Your task to perform on an android device: toggle translation in the chrome app Image 0: 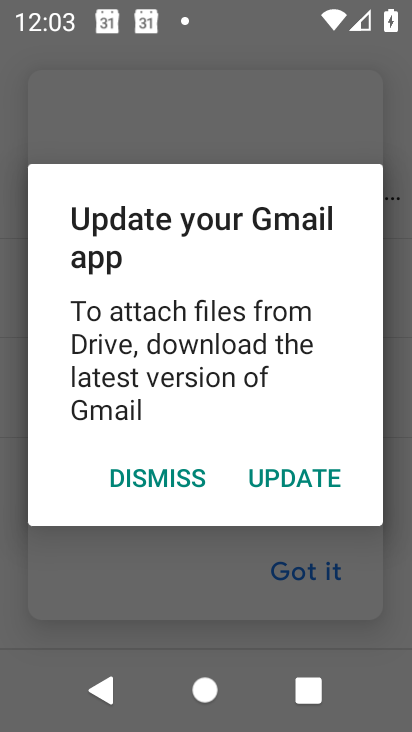
Step 0: press home button
Your task to perform on an android device: toggle translation in the chrome app Image 1: 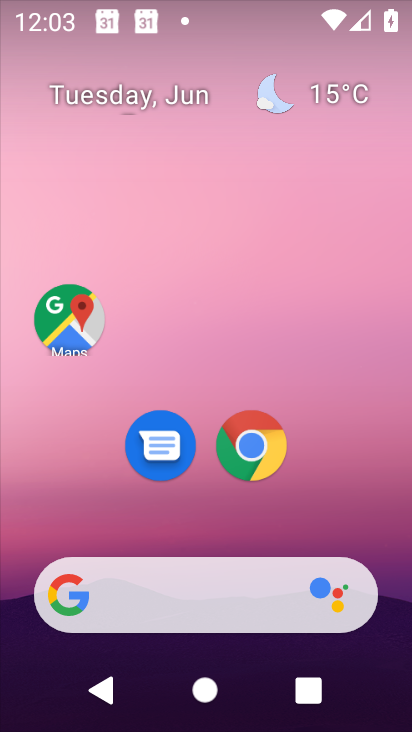
Step 1: click (241, 440)
Your task to perform on an android device: toggle translation in the chrome app Image 2: 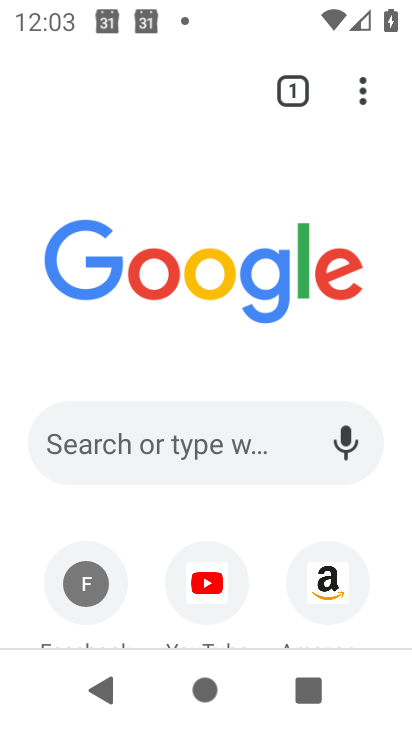
Step 2: click (370, 87)
Your task to perform on an android device: toggle translation in the chrome app Image 3: 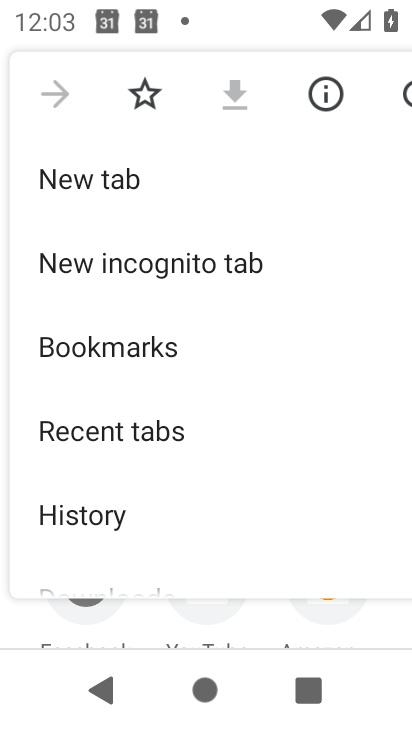
Step 3: drag from (153, 557) to (87, 132)
Your task to perform on an android device: toggle translation in the chrome app Image 4: 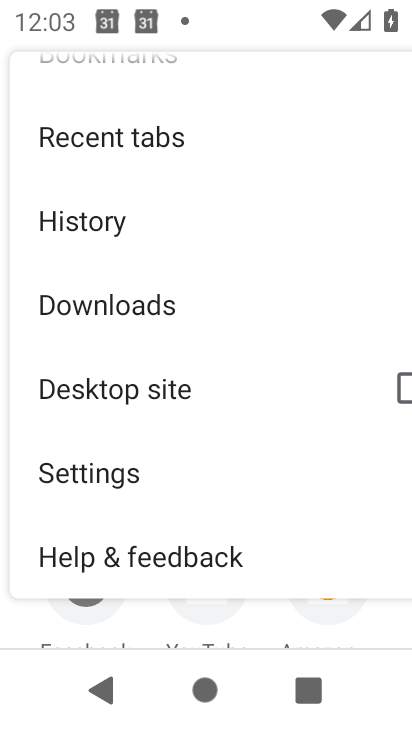
Step 4: click (99, 480)
Your task to perform on an android device: toggle translation in the chrome app Image 5: 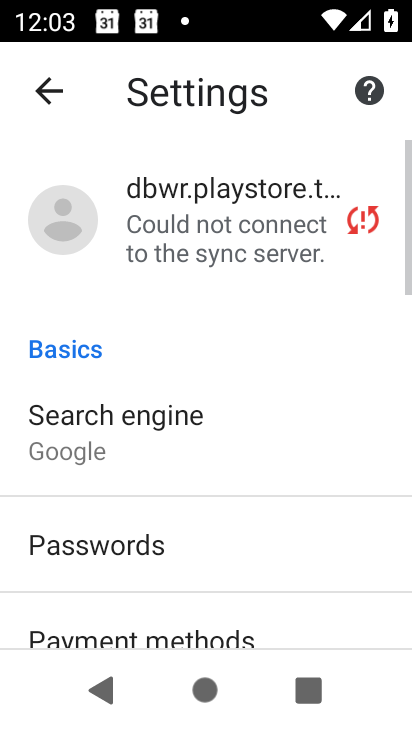
Step 5: drag from (88, 619) to (127, 194)
Your task to perform on an android device: toggle translation in the chrome app Image 6: 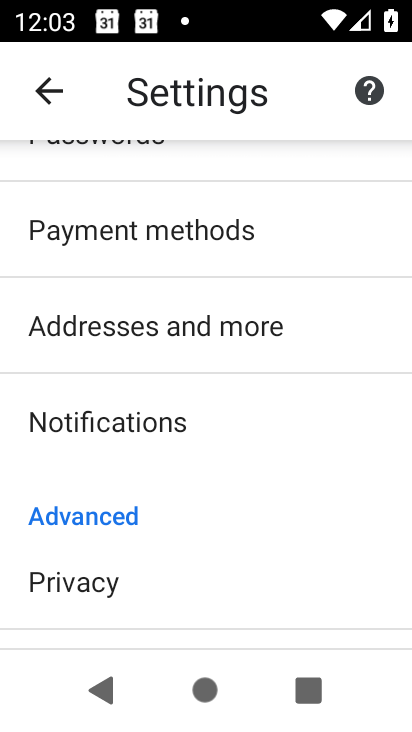
Step 6: drag from (113, 601) to (89, 219)
Your task to perform on an android device: toggle translation in the chrome app Image 7: 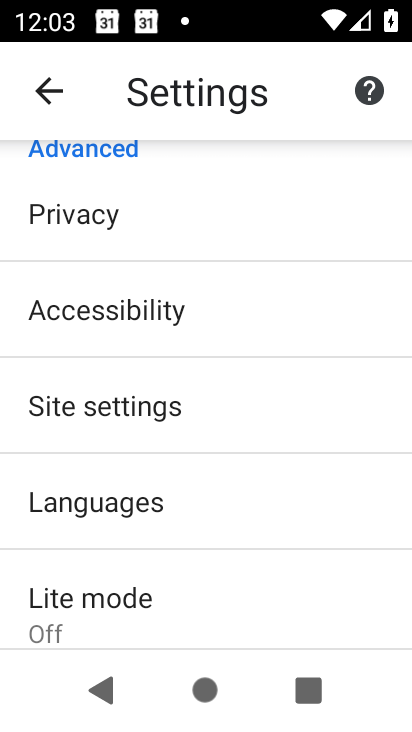
Step 7: click (61, 534)
Your task to perform on an android device: toggle translation in the chrome app Image 8: 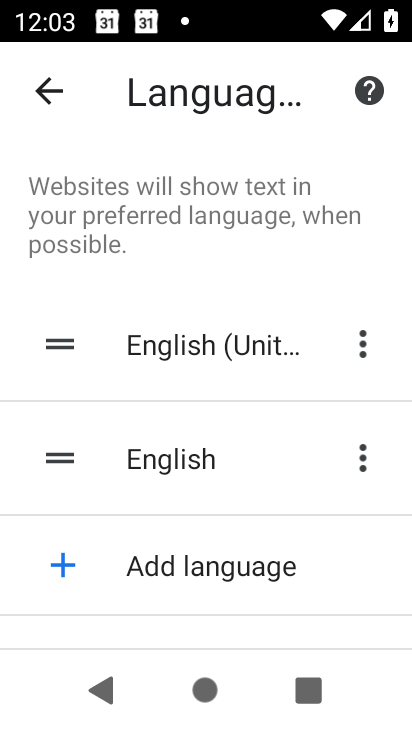
Step 8: drag from (133, 583) to (141, 120)
Your task to perform on an android device: toggle translation in the chrome app Image 9: 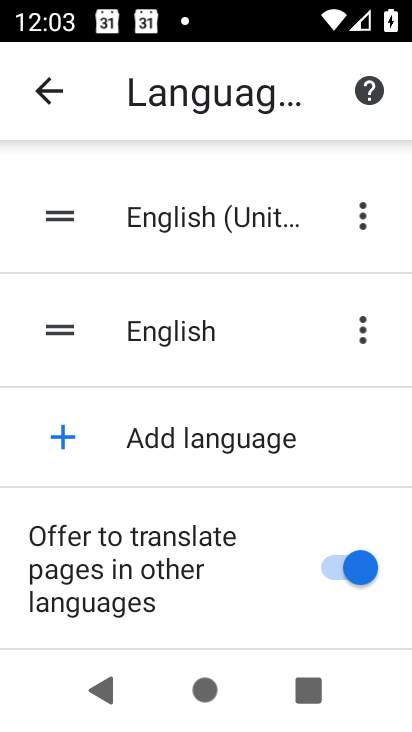
Step 9: click (359, 562)
Your task to perform on an android device: toggle translation in the chrome app Image 10: 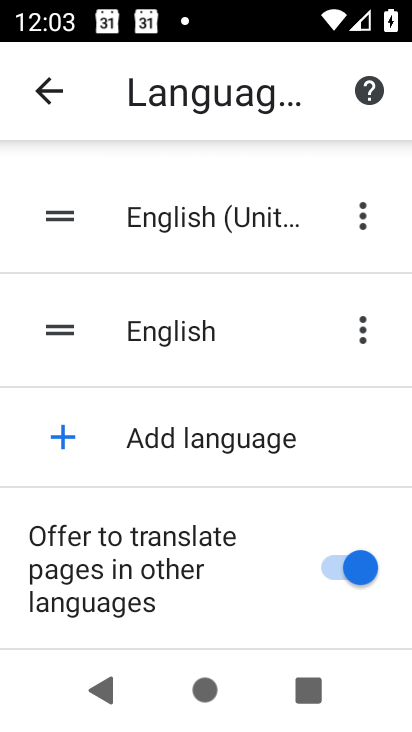
Step 10: click (359, 562)
Your task to perform on an android device: toggle translation in the chrome app Image 11: 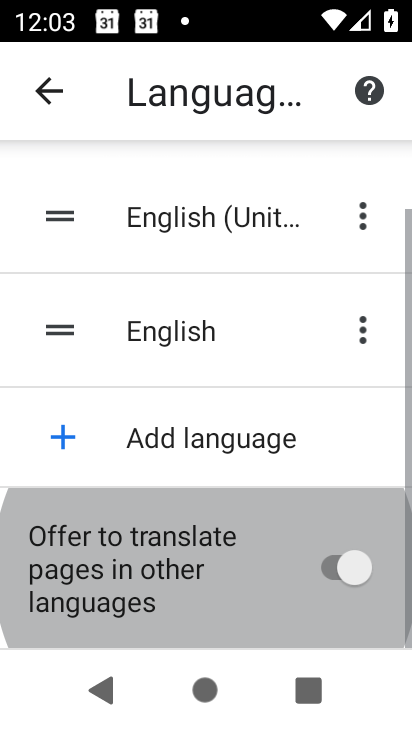
Step 11: click (359, 562)
Your task to perform on an android device: toggle translation in the chrome app Image 12: 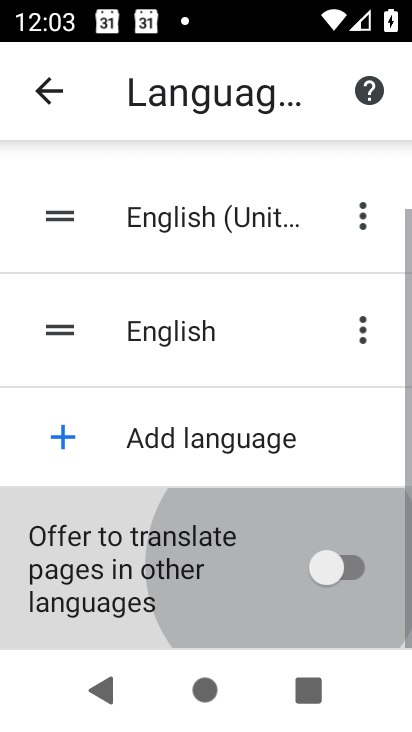
Step 12: click (359, 562)
Your task to perform on an android device: toggle translation in the chrome app Image 13: 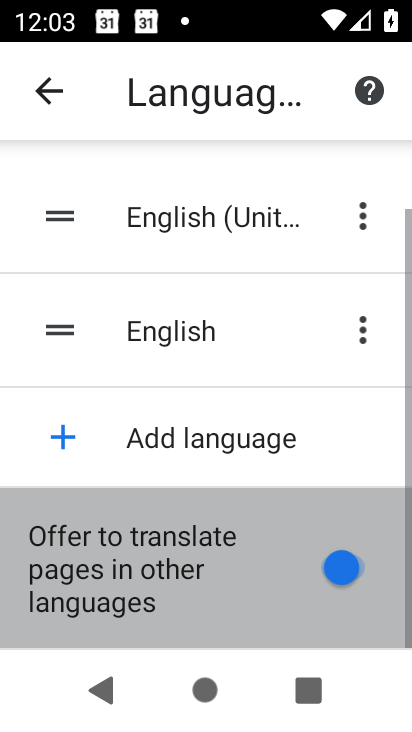
Step 13: click (359, 562)
Your task to perform on an android device: toggle translation in the chrome app Image 14: 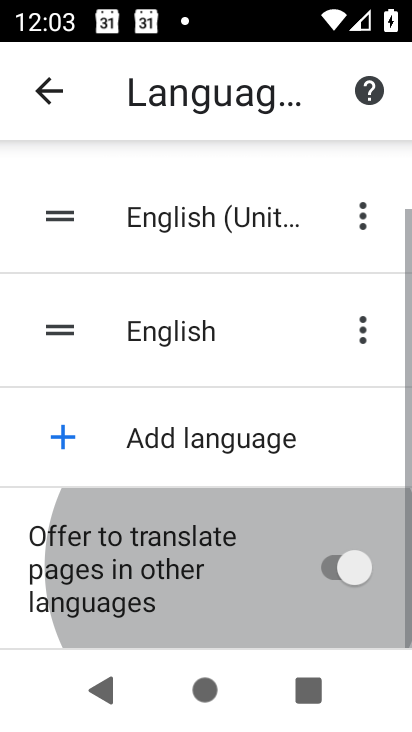
Step 14: click (359, 562)
Your task to perform on an android device: toggle translation in the chrome app Image 15: 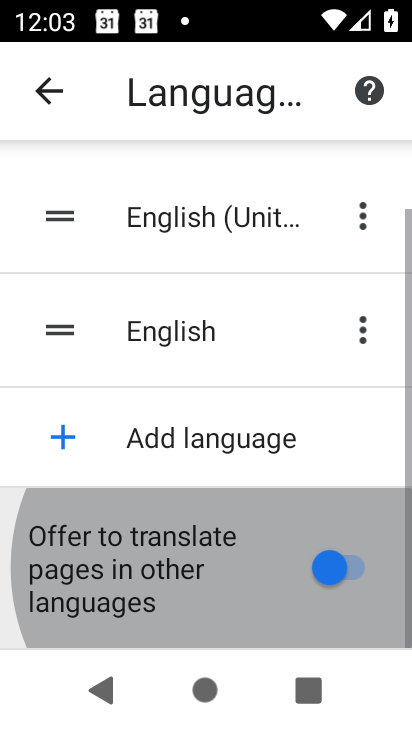
Step 15: click (359, 562)
Your task to perform on an android device: toggle translation in the chrome app Image 16: 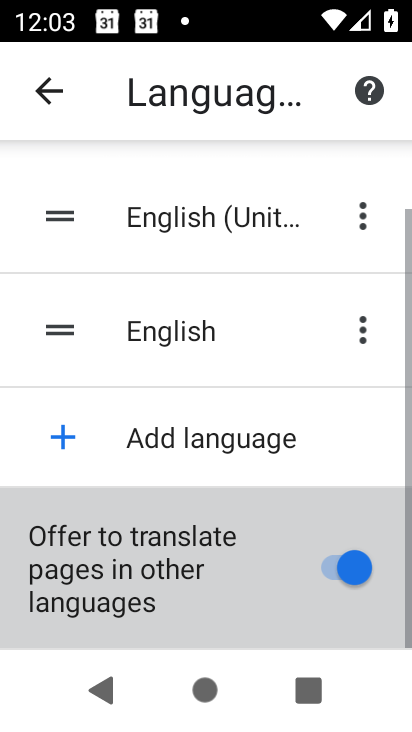
Step 16: click (359, 562)
Your task to perform on an android device: toggle translation in the chrome app Image 17: 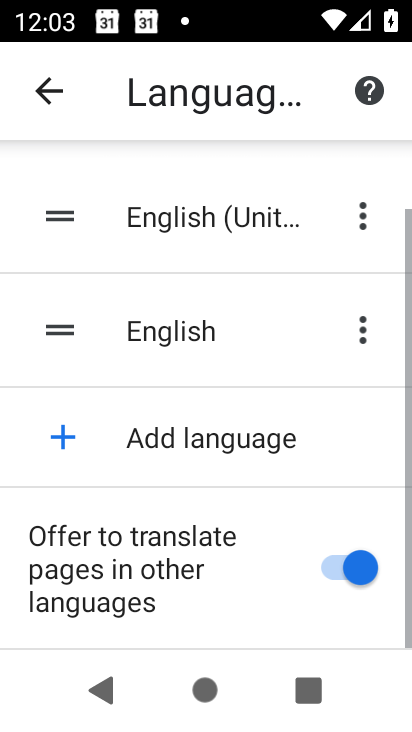
Step 17: task complete